Your task to perform on an android device: Open Google Image 0: 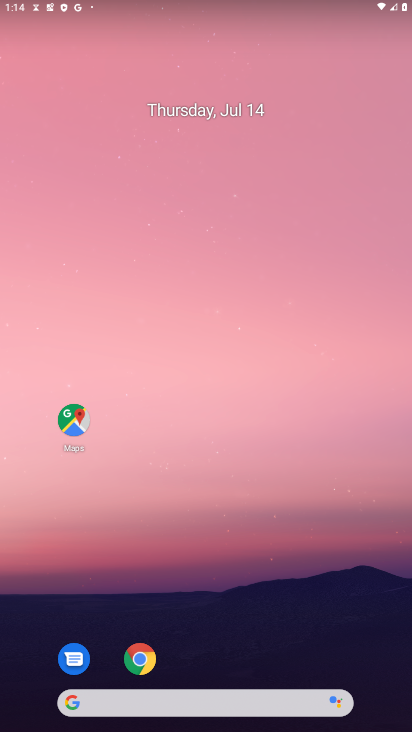
Step 0: click (134, 655)
Your task to perform on an android device: Open Google Image 1: 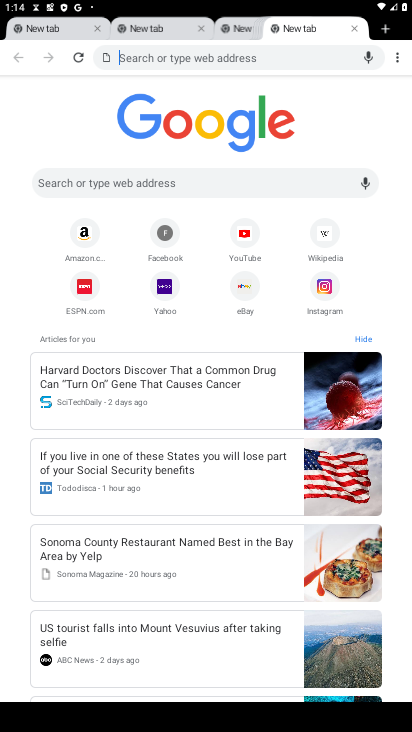
Step 1: task complete